Your task to perform on an android device: Search for the best rated Bluetooth earbuds on Ali express Image 0: 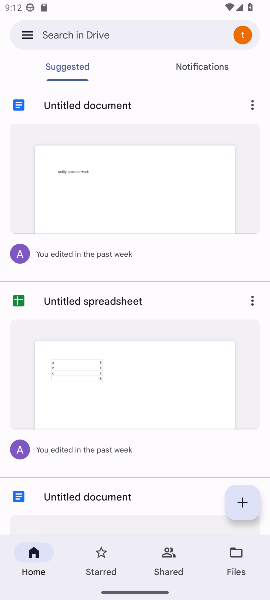
Step 0: press home button
Your task to perform on an android device: Search for the best rated Bluetooth earbuds on Ali express Image 1: 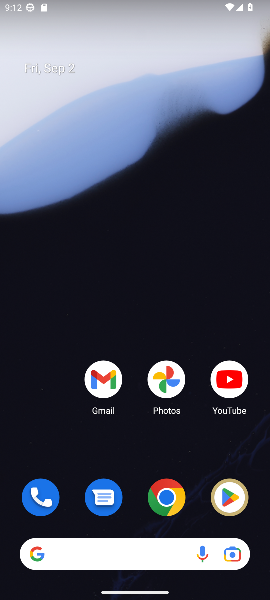
Step 1: drag from (122, 379) to (159, 5)
Your task to perform on an android device: Search for the best rated Bluetooth earbuds on Ali express Image 2: 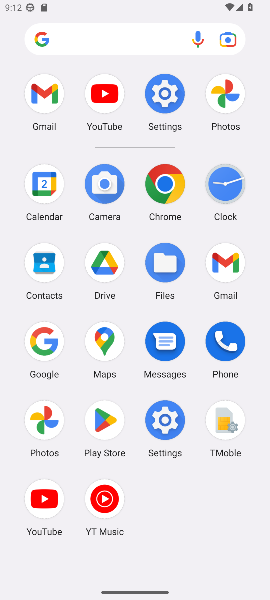
Step 2: click (45, 338)
Your task to perform on an android device: Search for the best rated Bluetooth earbuds on Ali express Image 3: 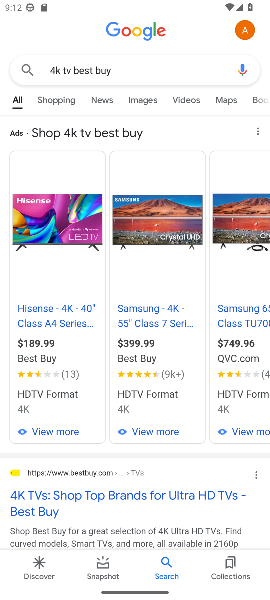
Step 3: click (146, 69)
Your task to perform on an android device: Search for the best rated Bluetooth earbuds on Ali express Image 4: 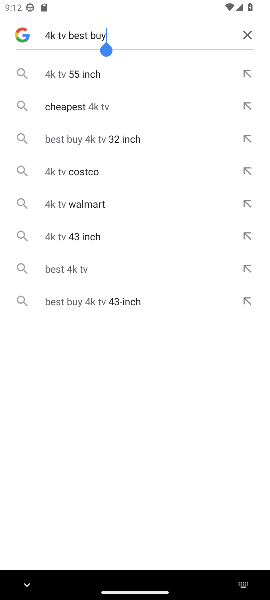
Step 4: click (248, 33)
Your task to perform on an android device: Search for the best rated Bluetooth earbuds on Ali express Image 5: 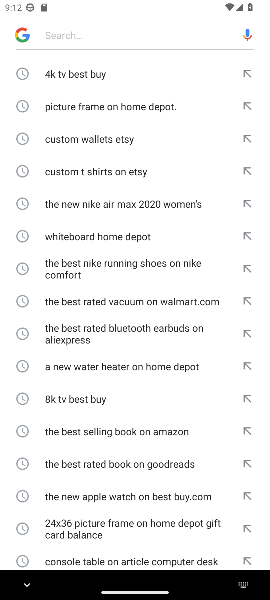
Step 5: type "the best rated Bluetooth earbuds on Ali express"
Your task to perform on an android device: Search for the best rated Bluetooth earbuds on Ali express Image 6: 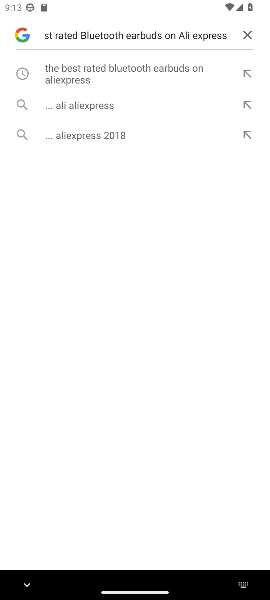
Step 6: click (167, 70)
Your task to perform on an android device: Search for the best rated Bluetooth earbuds on Ali express Image 7: 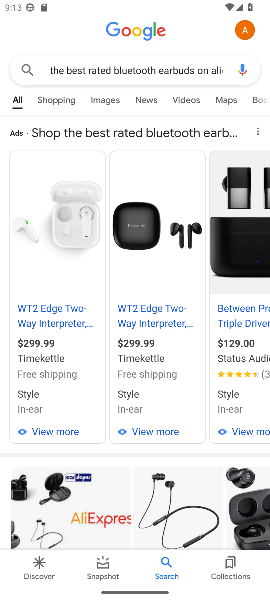
Step 7: task complete